Your task to perform on an android device: set an alarm Image 0: 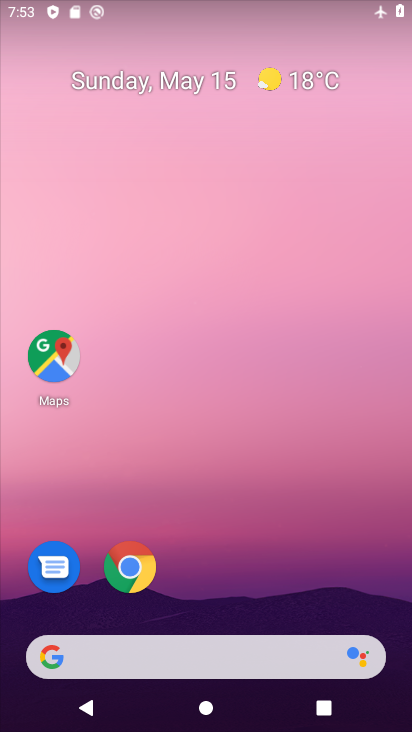
Step 0: drag from (141, 677) to (341, 97)
Your task to perform on an android device: set an alarm Image 1: 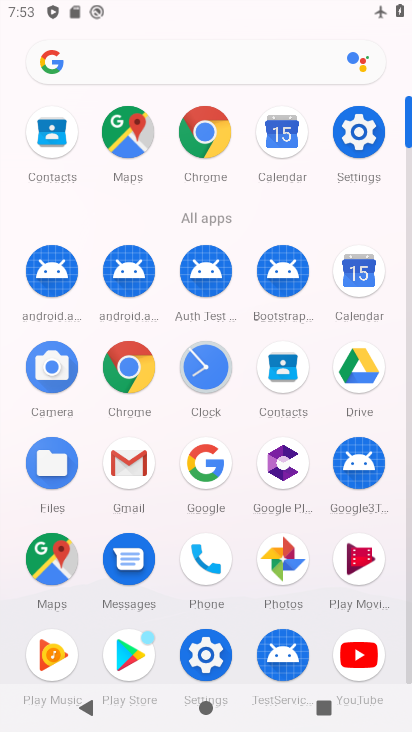
Step 1: click (210, 368)
Your task to perform on an android device: set an alarm Image 2: 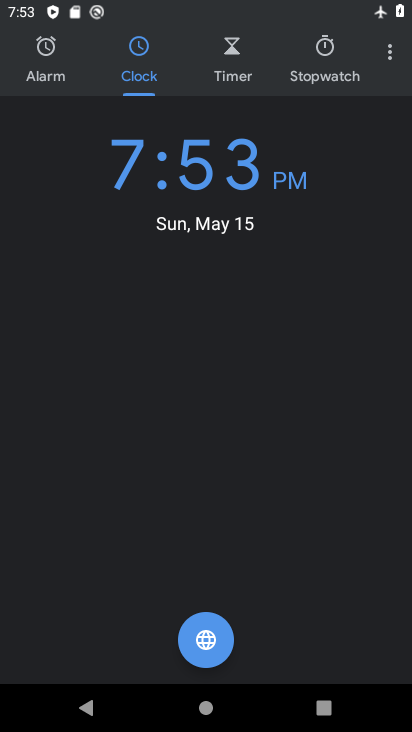
Step 2: click (32, 54)
Your task to perform on an android device: set an alarm Image 3: 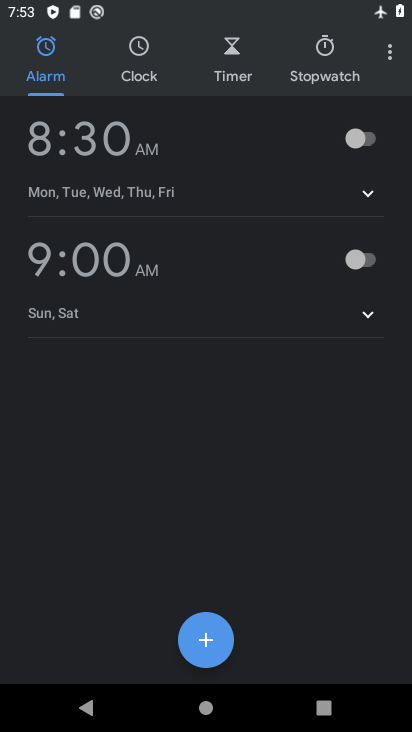
Step 3: click (201, 648)
Your task to perform on an android device: set an alarm Image 4: 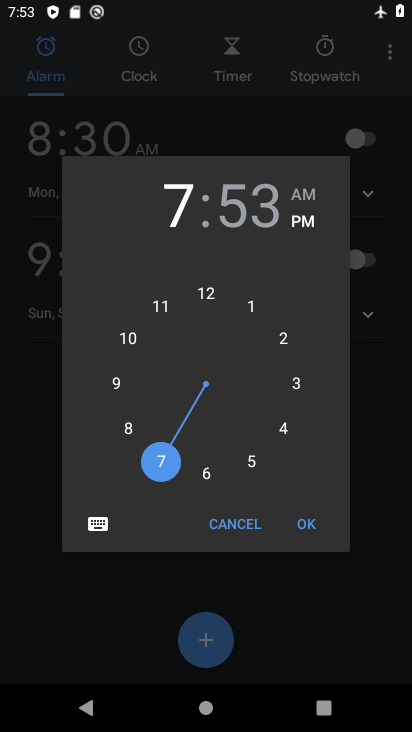
Step 4: click (312, 526)
Your task to perform on an android device: set an alarm Image 5: 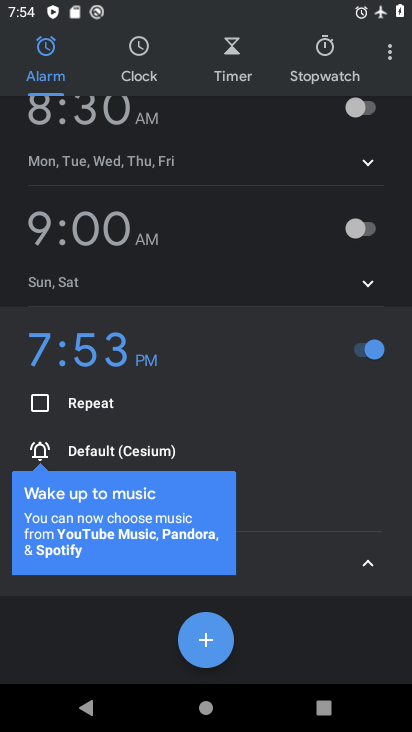
Step 5: task complete